Your task to perform on an android device: Open Youtube and go to the subscriptions tab Image 0: 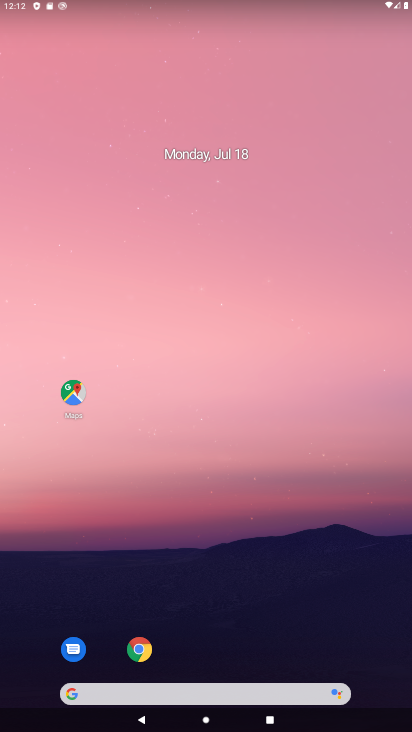
Step 0: drag from (56, 675) to (255, 39)
Your task to perform on an android device: Open Youtube and go to the subscriptions tab Image 1: 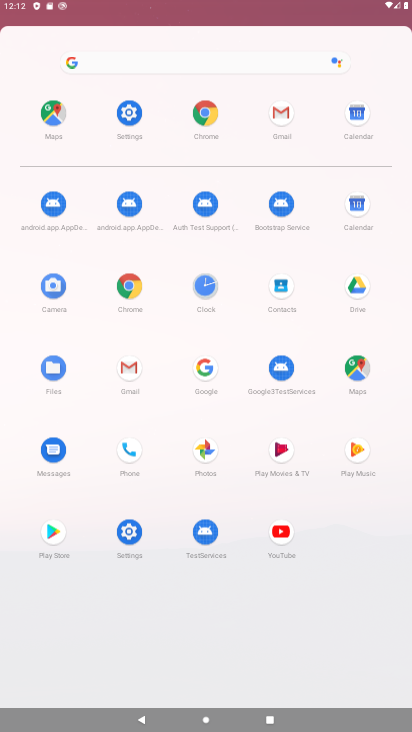
Step 1: click (334, 13)
Your task to perform on an android device: Open Youtube and go to the subscriptions tab Image 2: 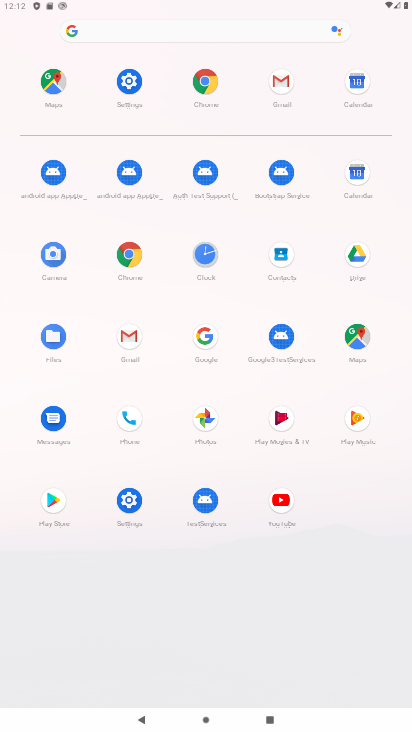
Step 2: click (298, 531)
Your task to perform on an android device: Open Youtube and go to the subscriptions tab Image 3: 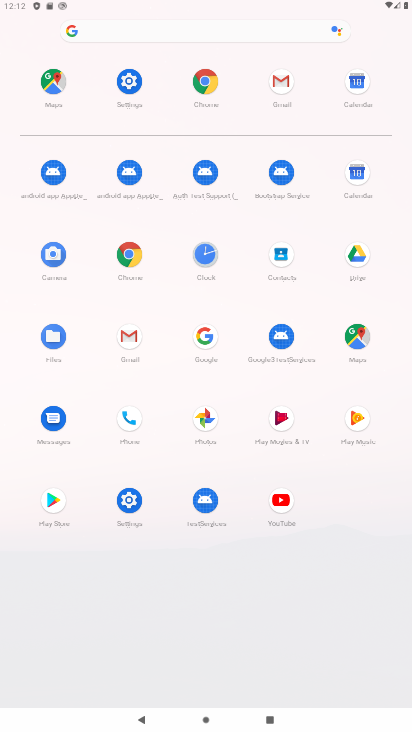
Step 3: click (279, 534)
Your task to perform on an android device: Open Youtube and go to the subscriptions tab Image 4: 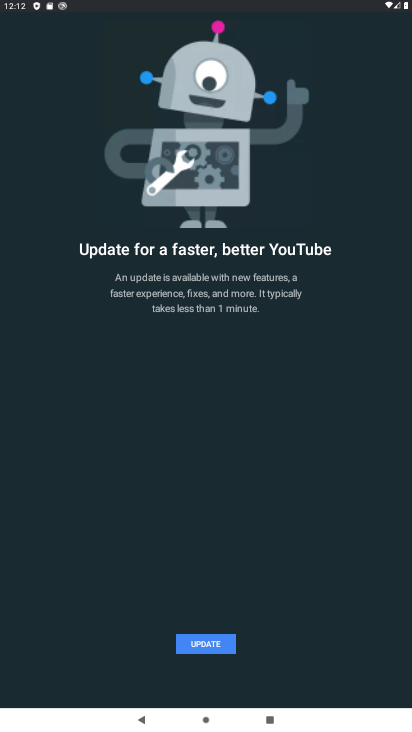
Step 4: click (214, 647)
Your task to perform on an android device: Open Youtube and go to the subscriptions tab Image 5: 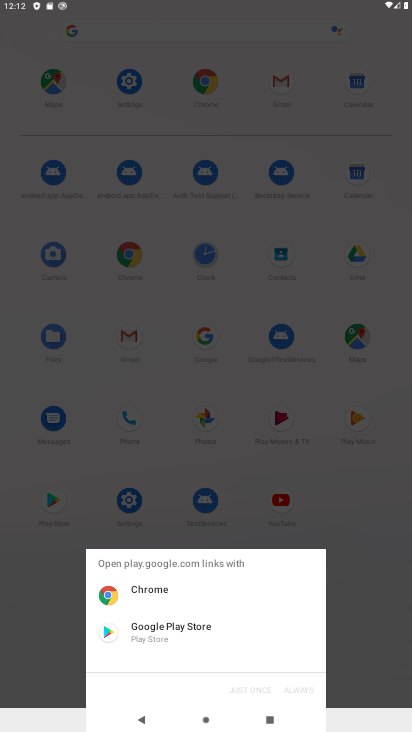
Step 5: click (176, 639)
Your task to perform on an android device: Open Youtube and go to the subscriptions tab Image 6: 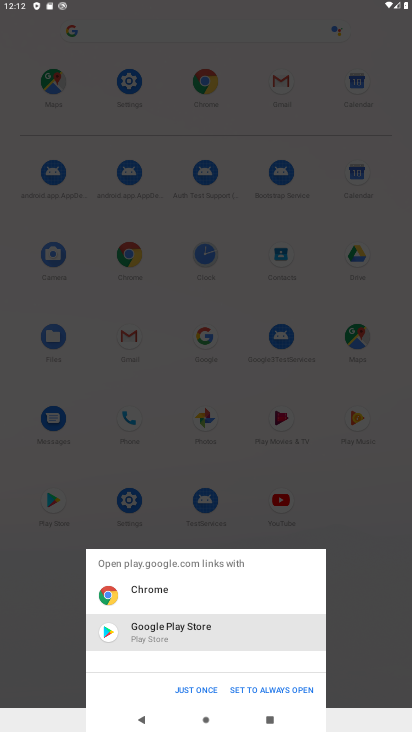
Step 6: click (204, 690)
Your task to perform on an android device: Open Youtube and go to the subscriptions tab Image 7: 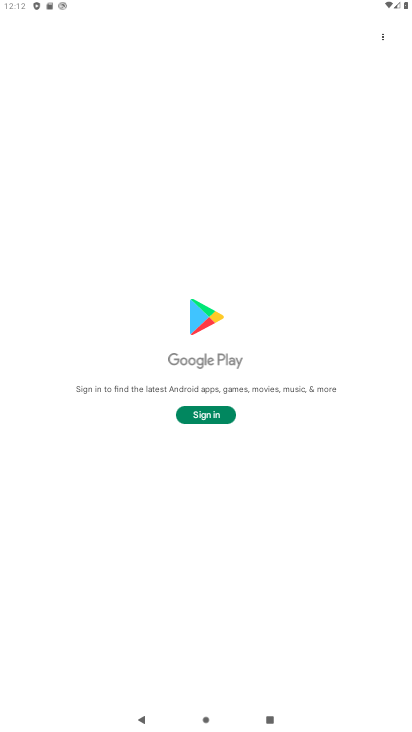
Step 7: task complete